Your task to perform on an android device: What's the weather? Image 0: 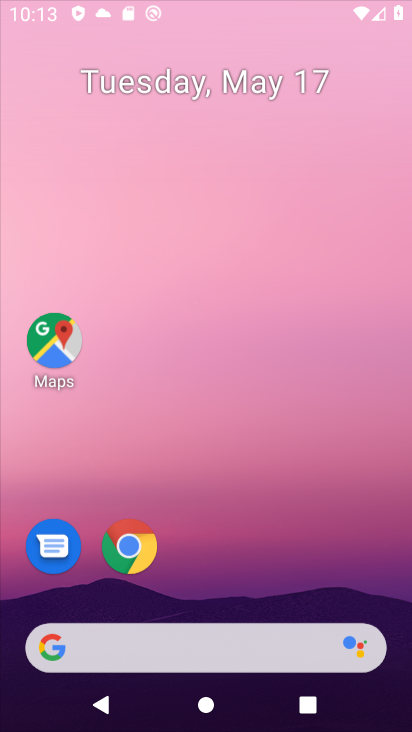
Step 0: press home button
Your task to perform on an android device: What's the weather? Image 1: 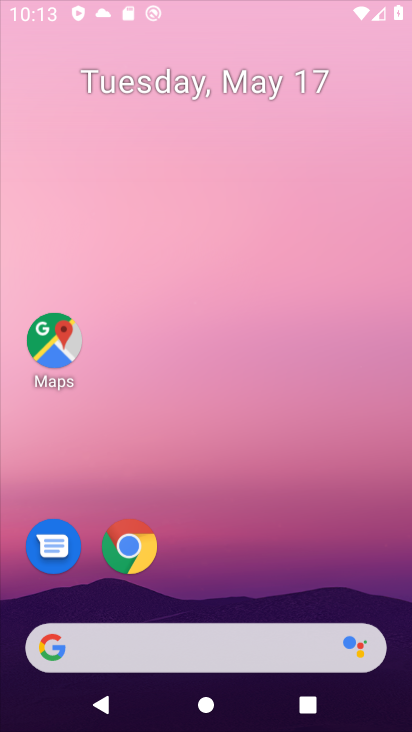
Step 1: click (253, 318)
Your task to perform on an android device: What's the weather? Image 2: 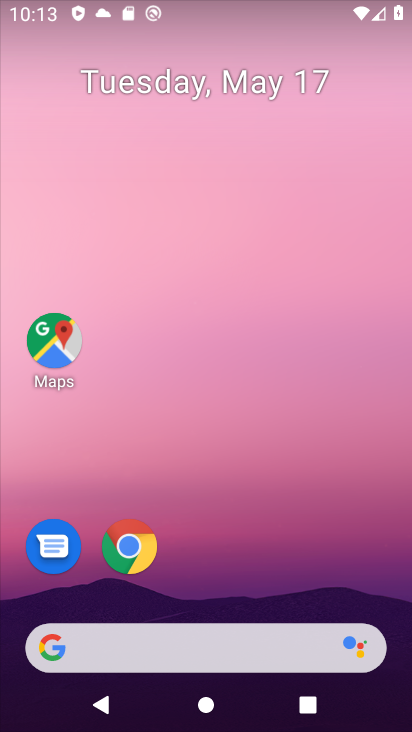
Step 2: click (127, 540)
Your task to perform on an android device: What's the weather? Image 3: 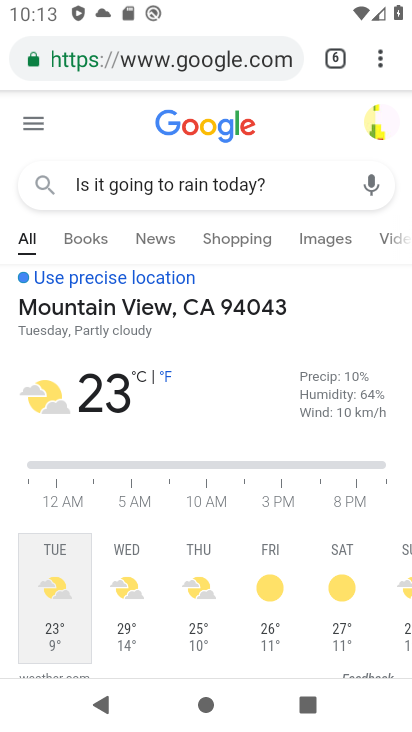
Step 3: click (376, 55)
Your task to perform on an android device: What's the weather? Image 4: 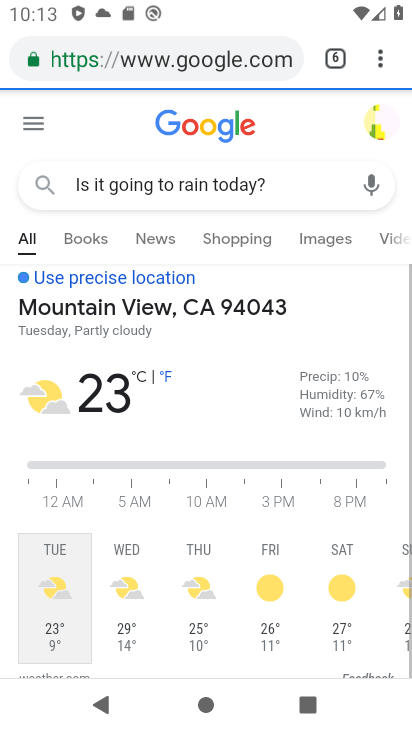
Step 4: click (373, 54)
Your task to perform on an android device: What's the weather? Image 5: 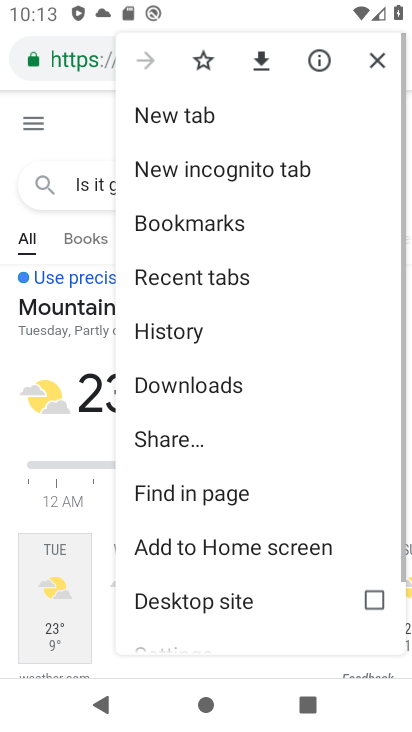
Step 5: click (197, 120)
Your task to perform on an android device: What's the weather? Image 6: 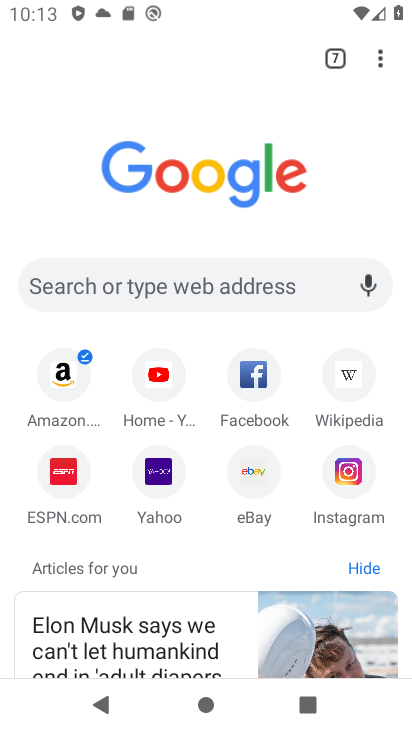
Step 6: click (118, 269)
Your task to perform on an android device: What's the weather? Image 7: 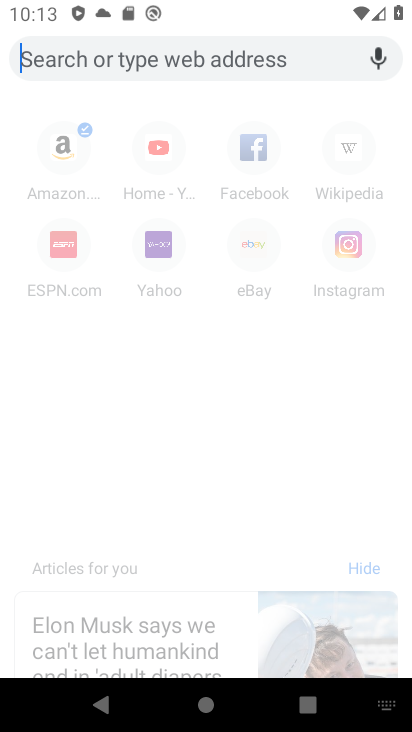
Step 7: type "What's the weather?"
Your task to perform on an android device: What's the weather? Image 8: 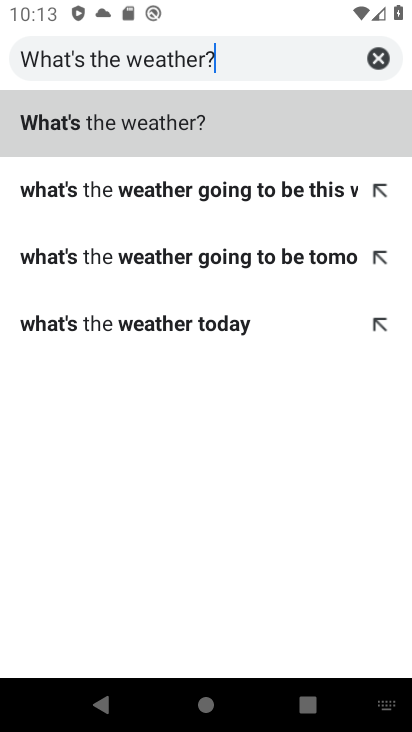
Step 8: click (146, 105)
Your task to perform on an android device: What's the weather? Image 9: 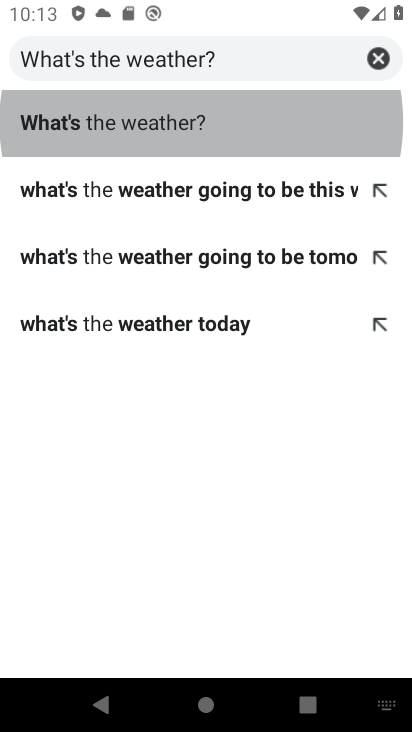
Step 9: click (146, 114)
Your task to perform on an android device: What's the weather? Image 10: 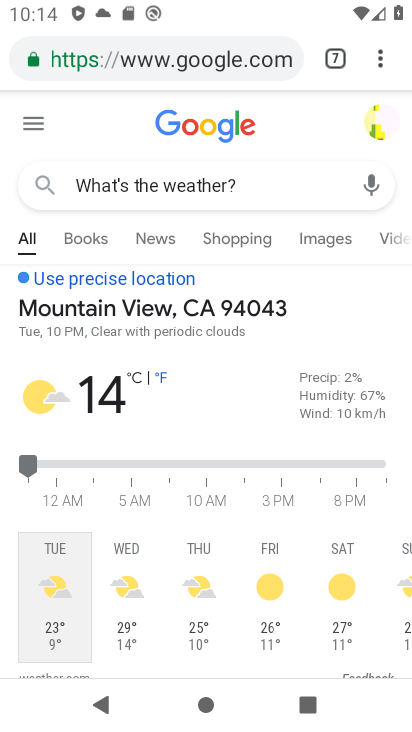
Step 10: task complete